Your task to perform on an android device: turn off location Image 0: 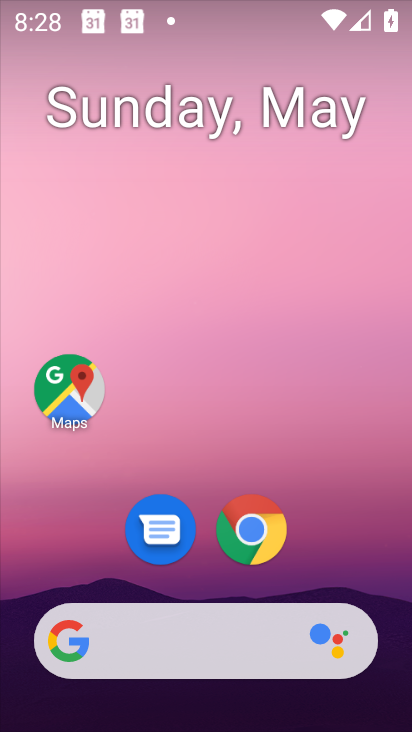
Step 0: drag from (353, 552) to (273, 33)
Your task to perform on an android device: turn off location Image 1: 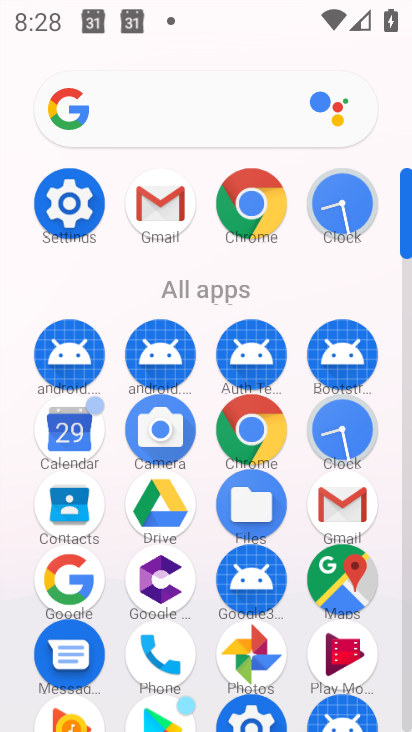
Step 1: click (85, 213)
Your task to perform on an android device: turn off location Image 2: 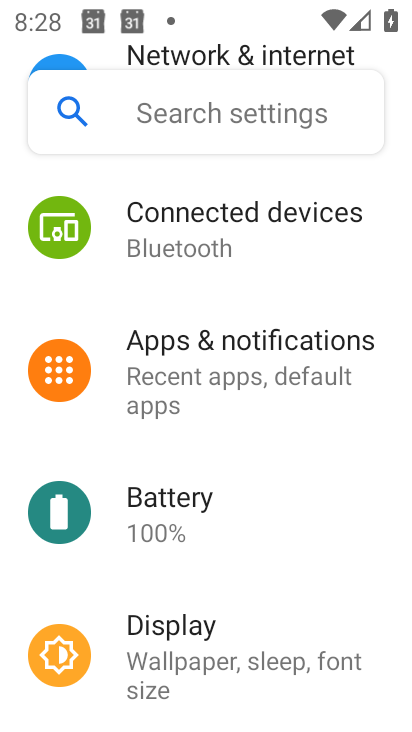
Step 2: click (188, 391)
Your task to perform on an android device: turn off location Image 3: 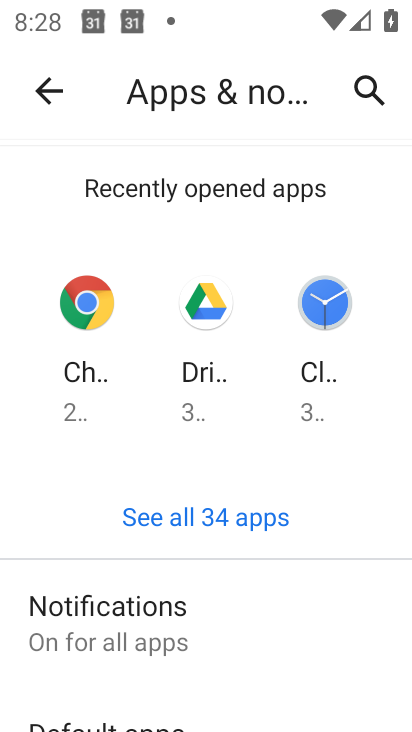
Step 3: task complete